Your task to perform on an android device: Check the weather Image 0: 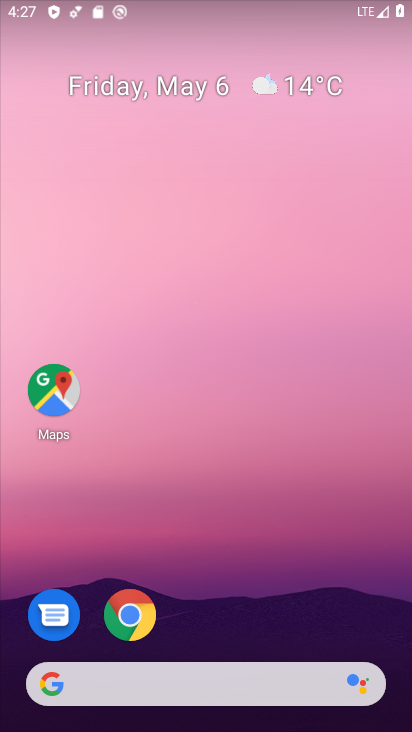
Step 0: click (191, 686)
Your task to perform on an android device: Check the weather Image 1: 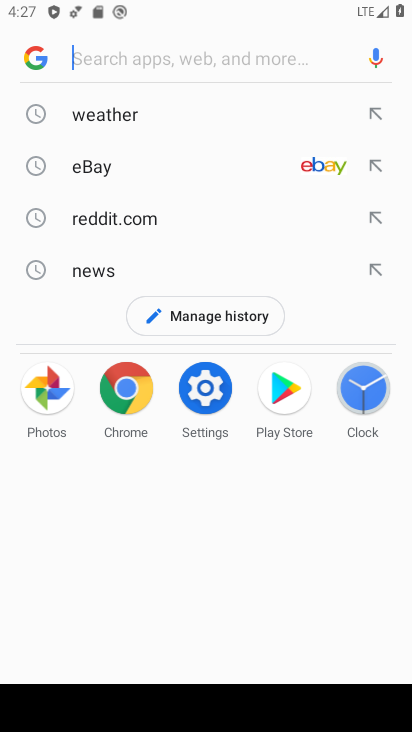
Step 1: click (147, 135)
Your task to perform on an android device: Check the weather Image 2: 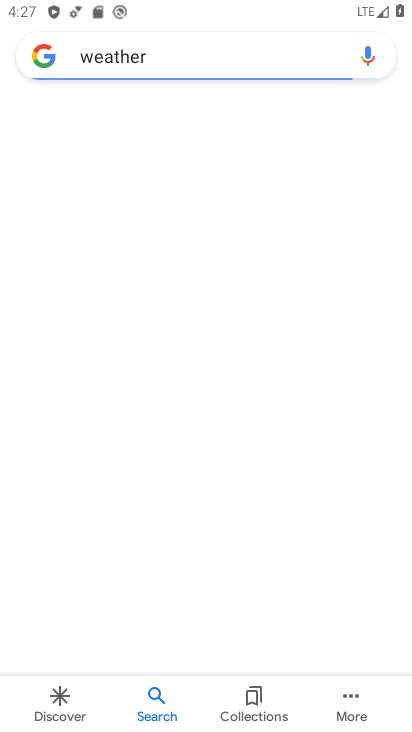
Step 2: task complete